Your task to perform on an android device: Go to Yahoo.com Image 0: 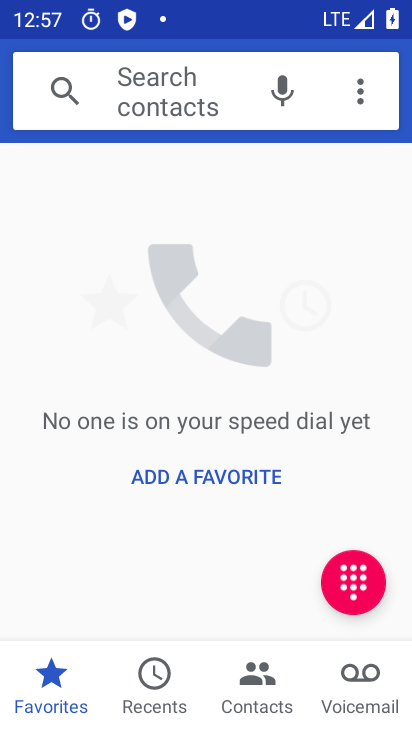
Step 0: press home button
Your task to perform on an android device: Go to Yahoo.com Image 1: 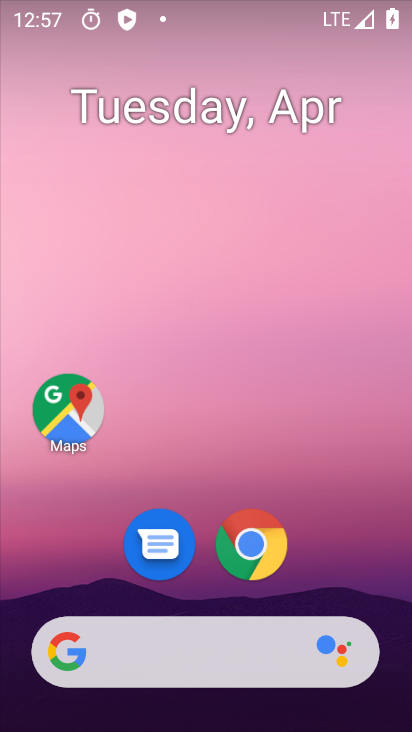
Step 1: click (255, 543)
Your task to perform on an android device: Go to Yahoo.com Image 2: 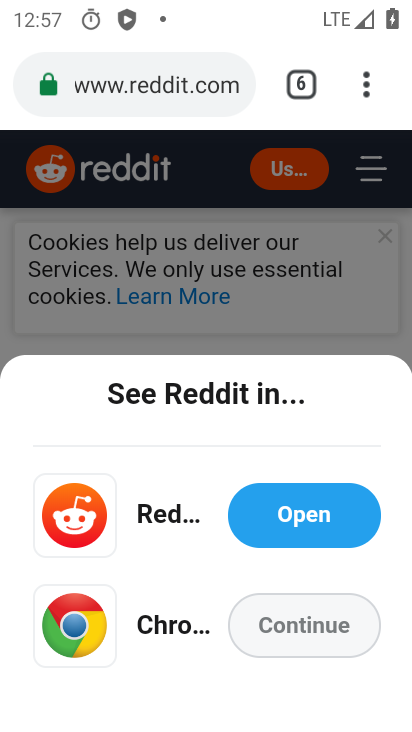
Step 2: click (131, 84)
Your task to perform on an android device: Go to Yahoo.com Image 3: 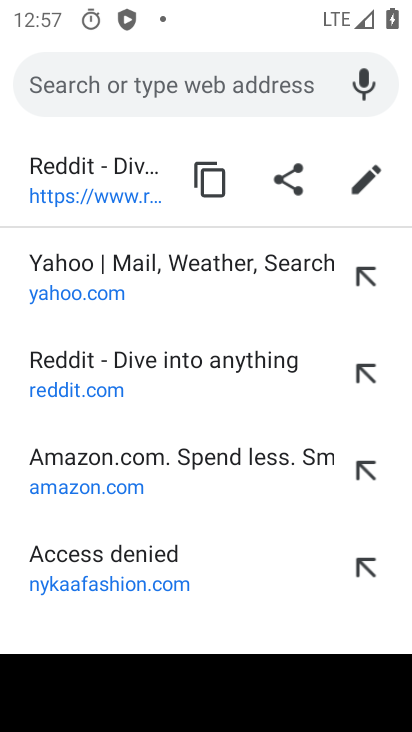
Step 3: click (61, 293)
Your task to perform on an android device: Go to Yahoo.com Image 4: 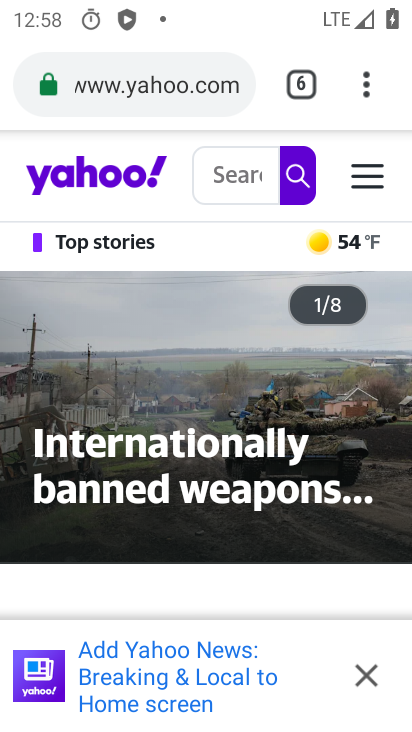
Step 4: task complete